Your task to perform on an android device: find which apps use the phone's location Image 0: 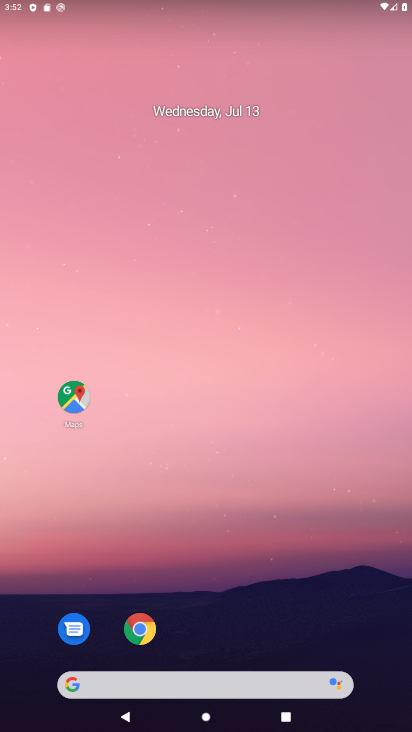
Step 0: drag from (195, 656) to (299, 74)
Your task to perform on an android device: find which apps use the phone's location Image 1: 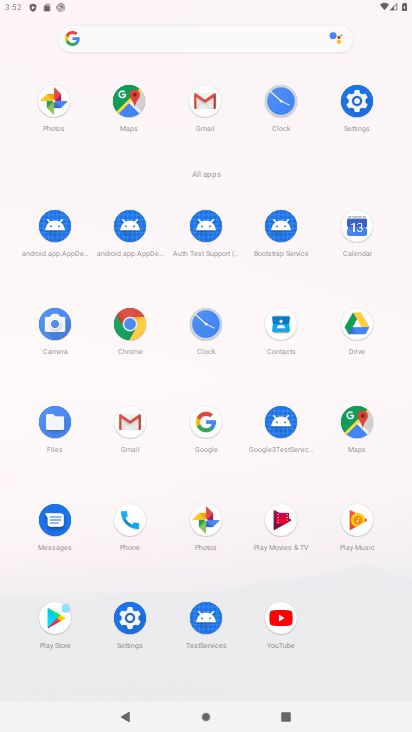
Step 1: click (124, 622)
Your task to perform on an android device: find which apps use the phone's location Image 2: 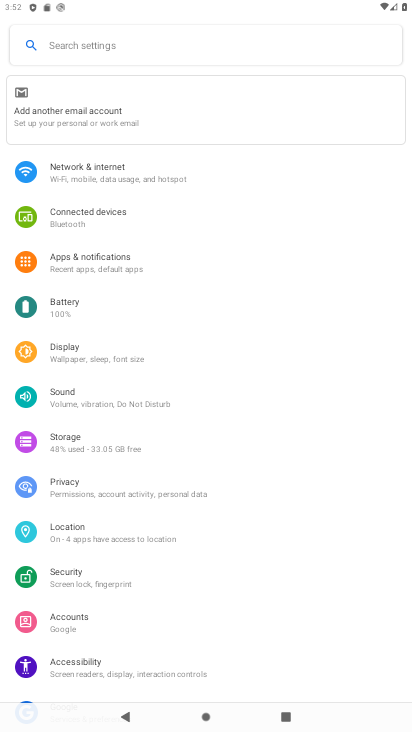
Step 2: click (126, 545)
Your task to perform on an android device: find which apps use the phone's location Image 3: 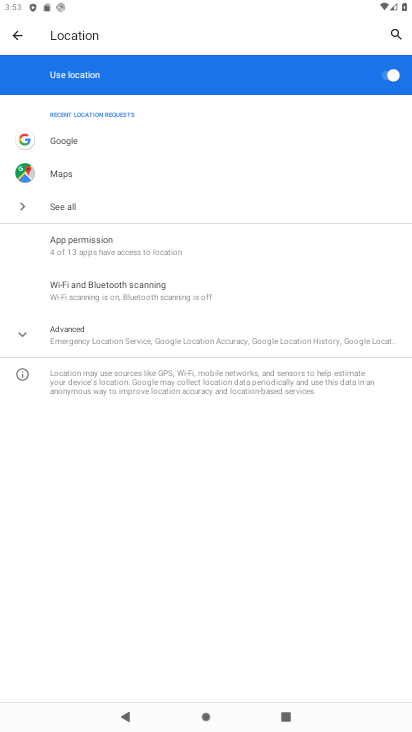
Step 3: click (163, 255)
Your task to perform on an android device: find which apps use the phone's location Image 4: 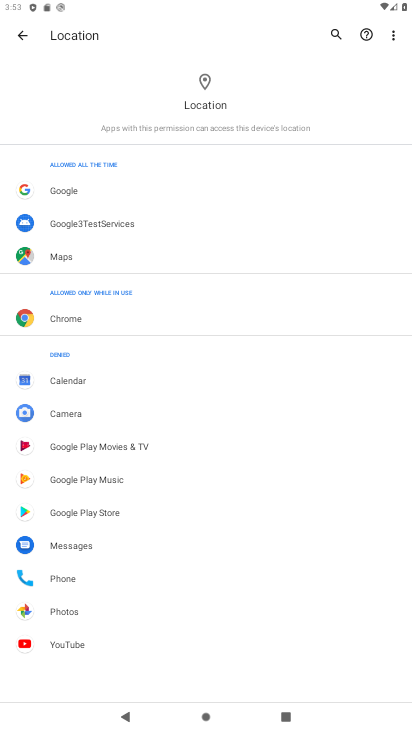
Step 4: task complete